Your task to perform on an android device: What's the weather going to be this weekend? Image 0: 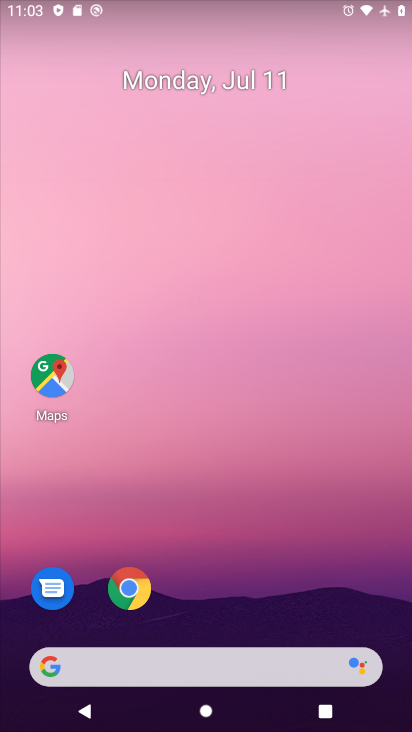
Step 0: press home button
Your task to perform on an android device: What's the weather going to be this weekend? Image 1: 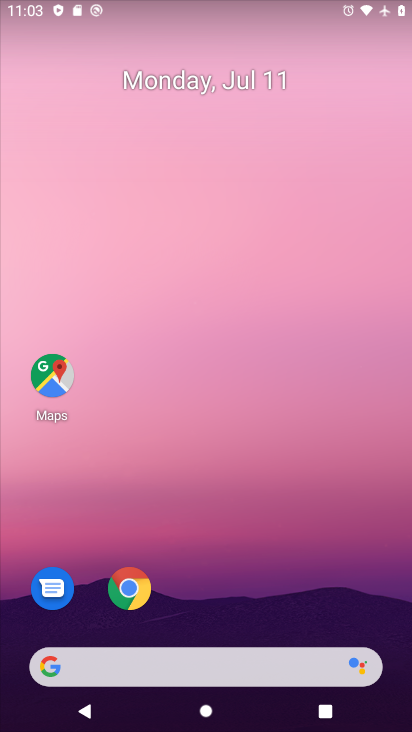
Step 1: click (152, 674)
Your task to perform on an android device: What's the weather going to be this weekend? Image 2: 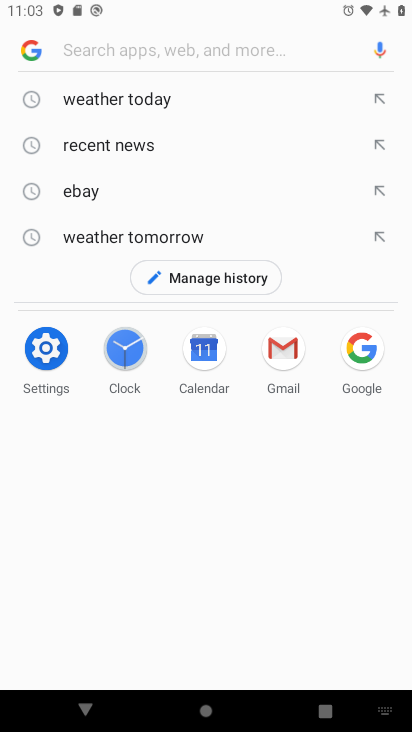
Step 2: type "What's the weather going to be this weekend"
Your task to perform on an android device: What's the weather going to be this weekend? Image 3: 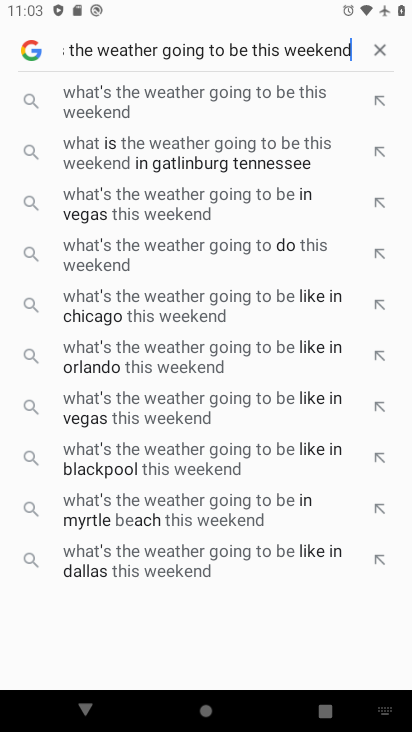
Step 3: click (178, 98)
Your task to perform on an android device: What's the weather going to be this weekend? Image 4: 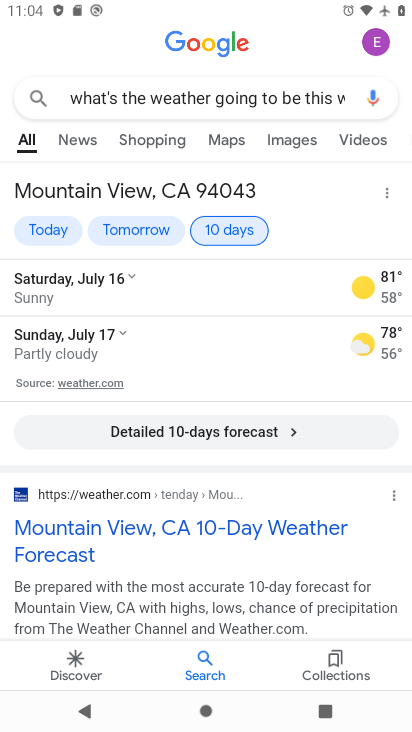
Step 4: task complete